Your task to perform on an android device: delete the emails in spam in the gmail app Image 0: 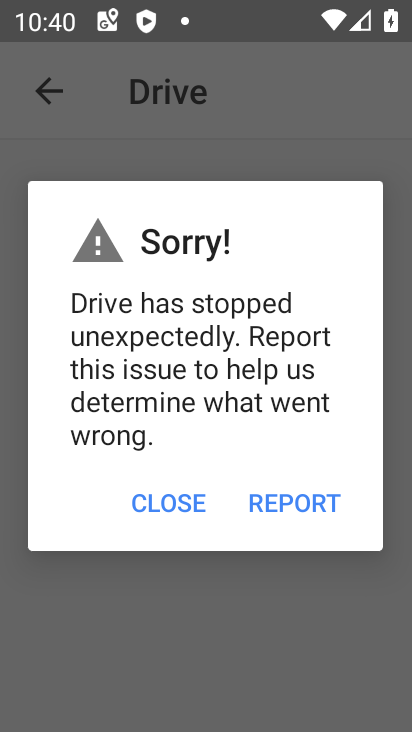
Step 0: press home button
Your task to perform on an android device: delete the emails in spam in the gmail app Image 1: 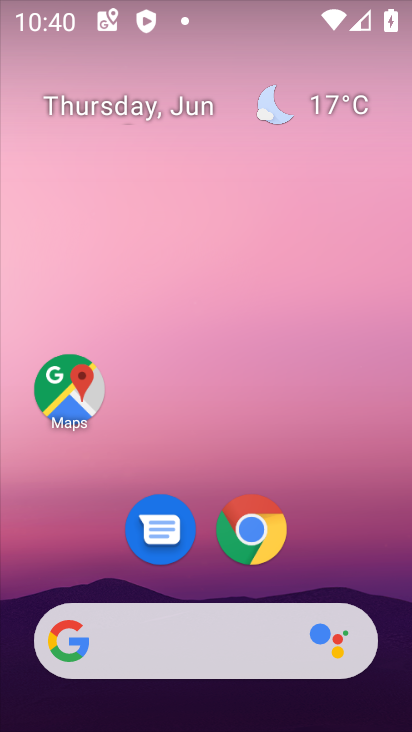
Step 1: drag from (338, 573) to (334, 5)
Your task to perform on an android device: delete the emails in spam in the gmail app Image 2: 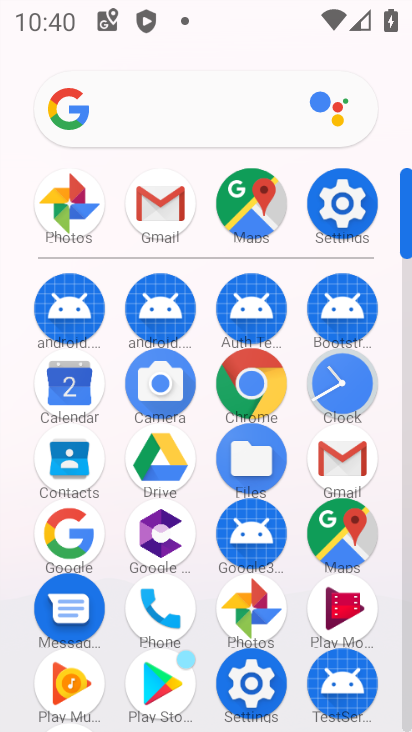
Step 2: click (325, 453)
Your task to perform on an android device: delete the emails in spam in the gmail app Image 3: 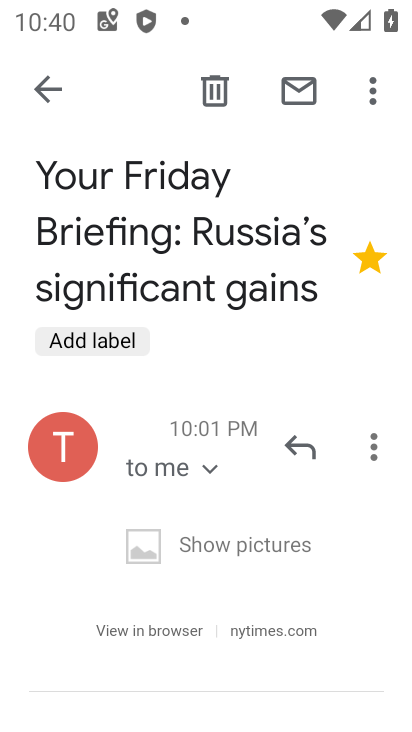
Step 3: click (46, 108)
Your task to perform on an android device: delete the emails in spam in the gmail app Image 4: 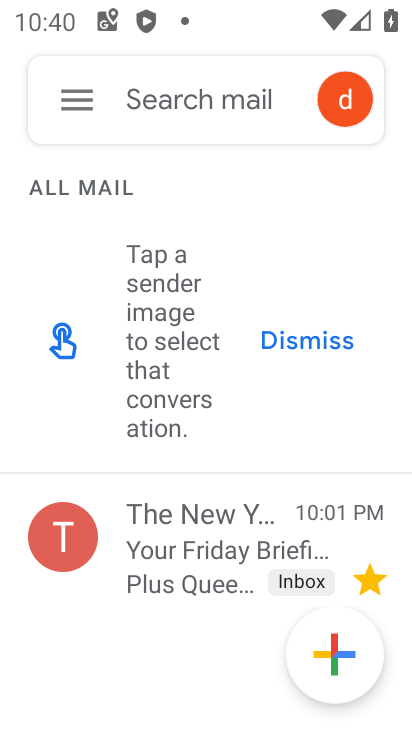
Step 4: click (66, 111)
Your task to perform on an android device: delete the emails in spam in the gmail app Image 5: 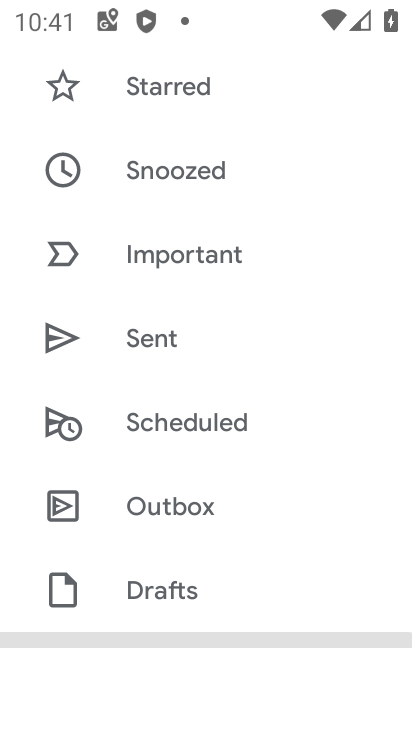
Step 5: drag from (119, 534) to (137, 237)
Your task to perform on an android device: delete the emails in spam in the gmail app Image 6: 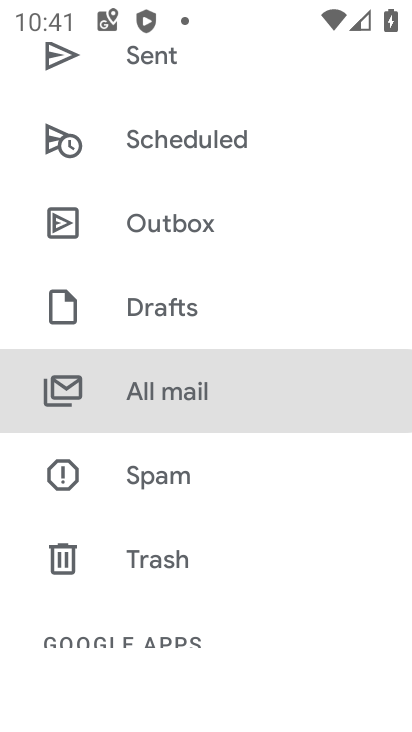
Step 6: click (145, 480)
Your task to perform on an android device: delete the emails in spam in the gmail app Image 7: 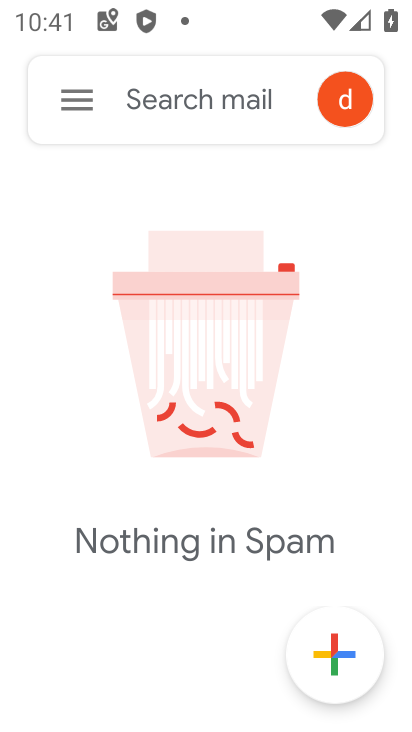
Step 7: task complete